Your task to perform on an android device: Open sound settings Image 0: 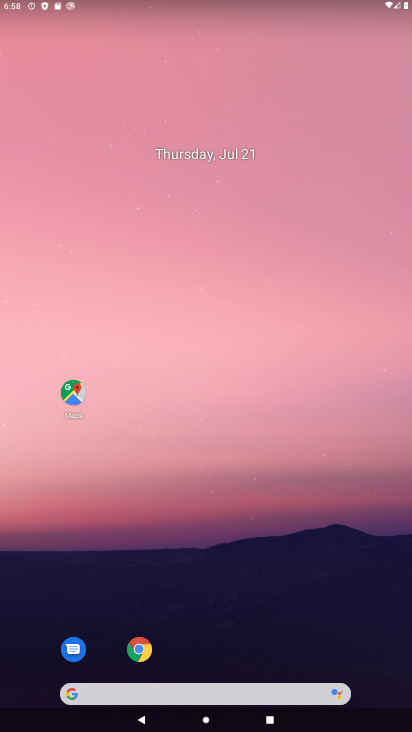
Step 0: drag from (245, 648) to (199, 175)
Your task to perform on an android device: Open sound settings Image 1: 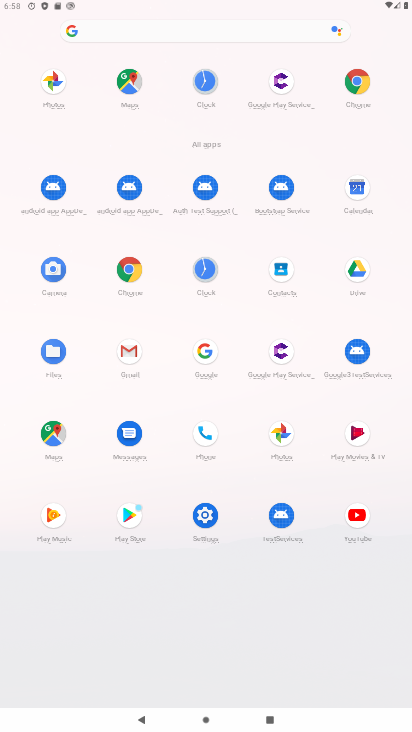
Step 1: drag from (216, 517) to (275, 654)
Your task to perform on an android device: Open sound settings Image 2: 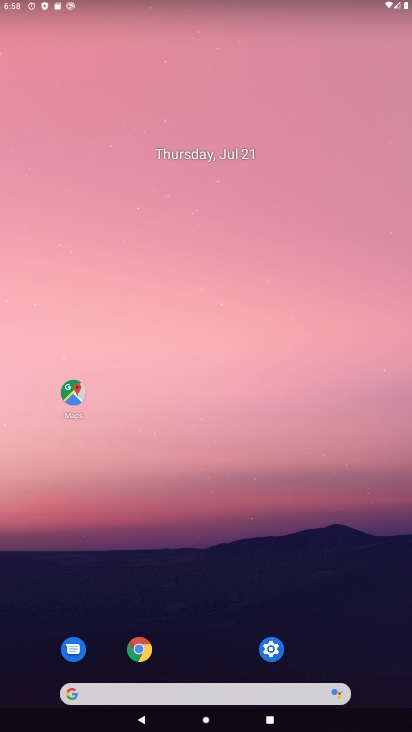
Step 2: click (280, 657)
Your task to perform on an android device: Open sound settings Image 3: 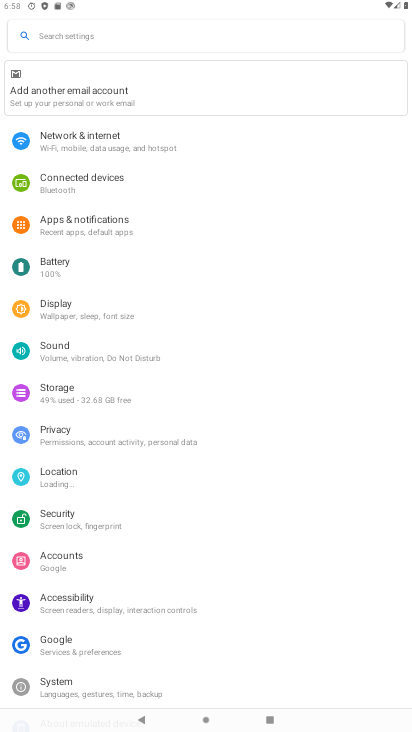
Step 3: click (67, 354)
Your task to perform on an android device: Open sound settings Image 4: 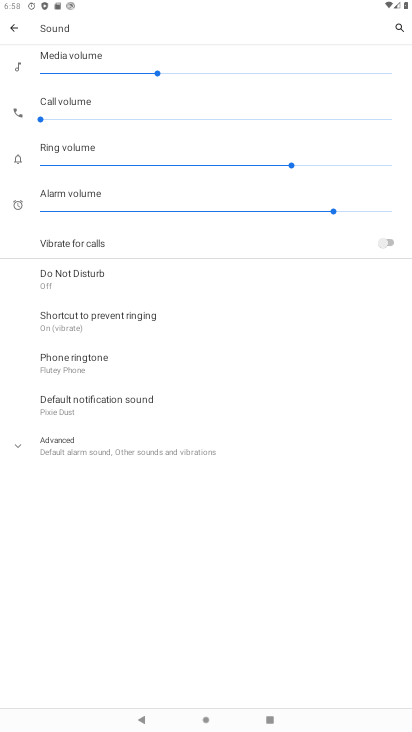
Step 4: task complete